Your task to perform on an android device: Open Wikipedia Image 0: 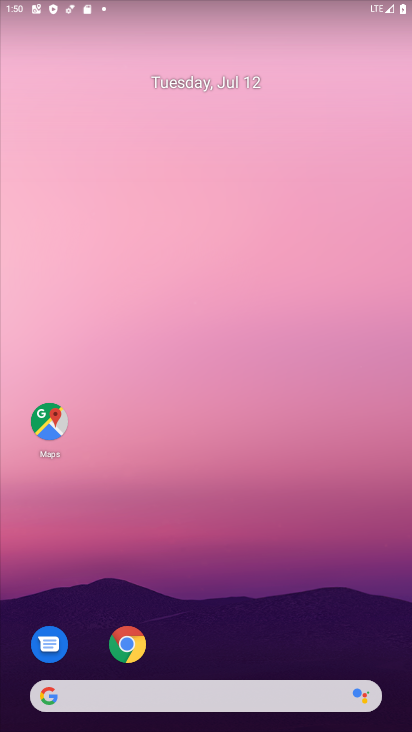
Step 0: click (139, 636)
Your task to perform on an android device: Open Wikipedia Image 1: 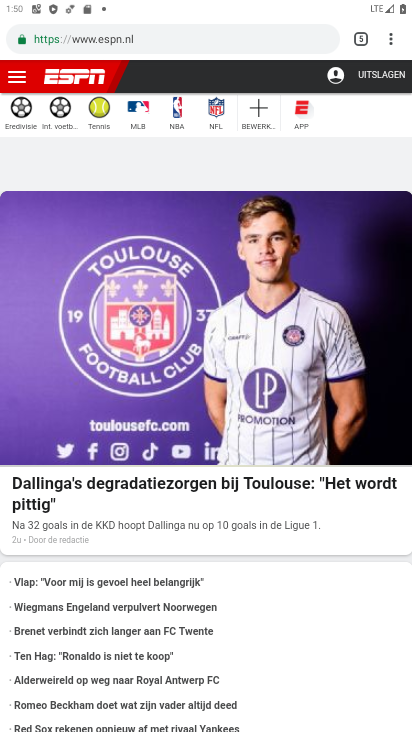
Step 1: click (359, 30)
Your task to perform on an android device: Open Wikipedia Image 2: 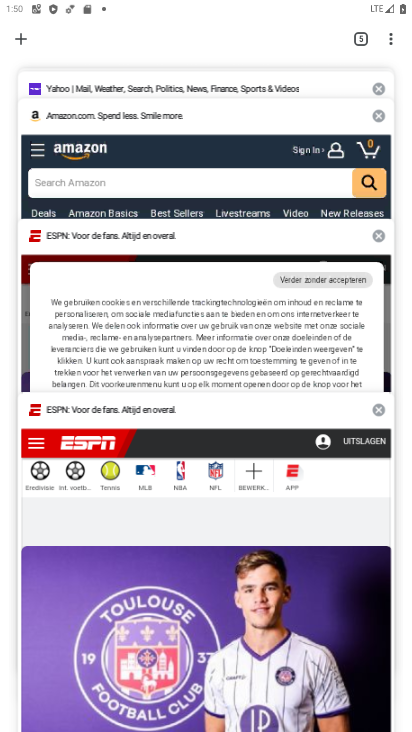
Step 2: click (18, 36)
Your task to perform on an android device: Open Wikipedia Image 3: 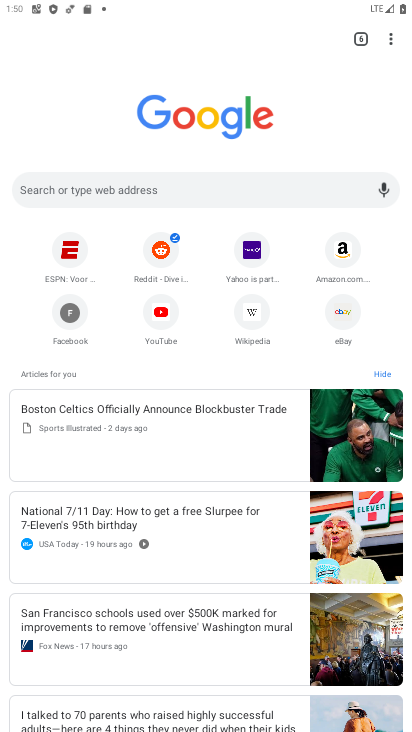
Step 3: click (256, 330)
Your task to perform on an android device: Open Wikipedia Image 4: 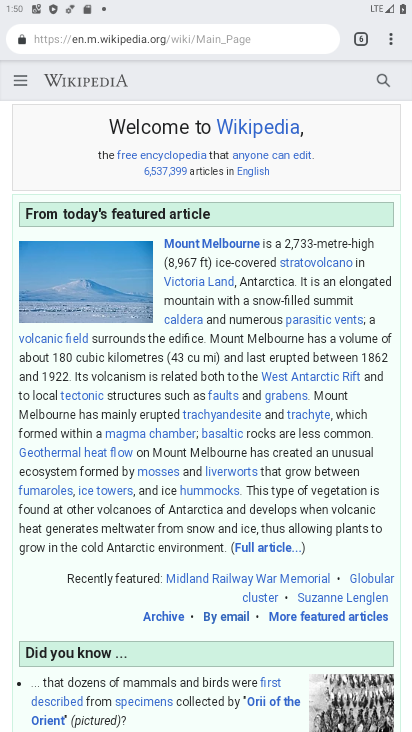
Step 4: task complete